Your task to perform on an android device: open chrome privacy settings Image 0: 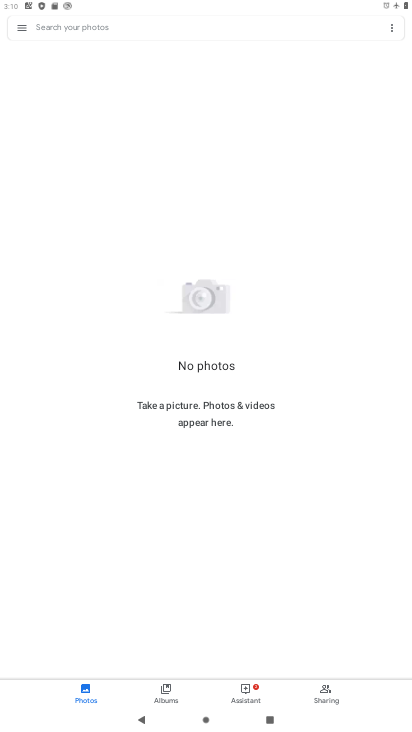
Step 0: press home button
Your task to perform on an android device: open chrome privacy settings Image 1: 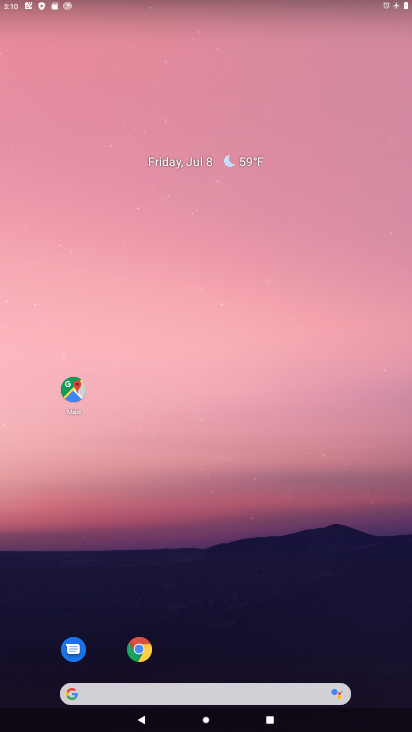
Step 1: drag from (262, 594) to (233, 176)
Your task to perform on an android device: open chrome privacy settings Image 2: 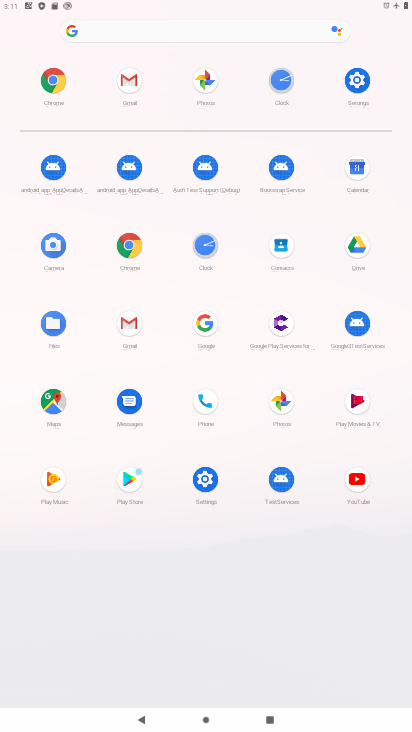
Step 2: click (356, 82)
Your task to perform on an android device: open chrome privacy settings Image 3: 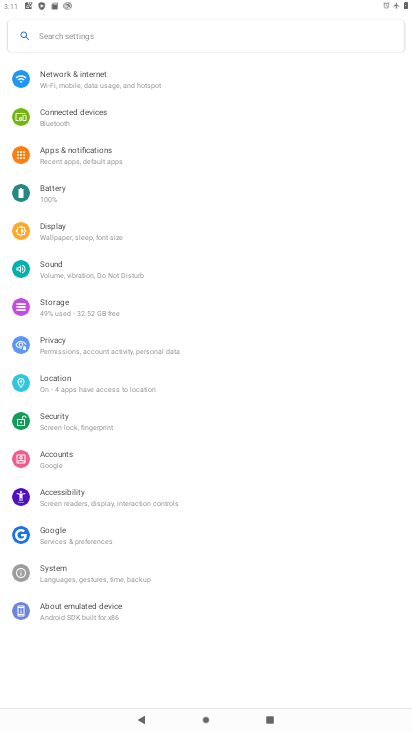
Step 3: click (105, 343)
Your task to perform on an android device: open chrome privacy settings Image 4: 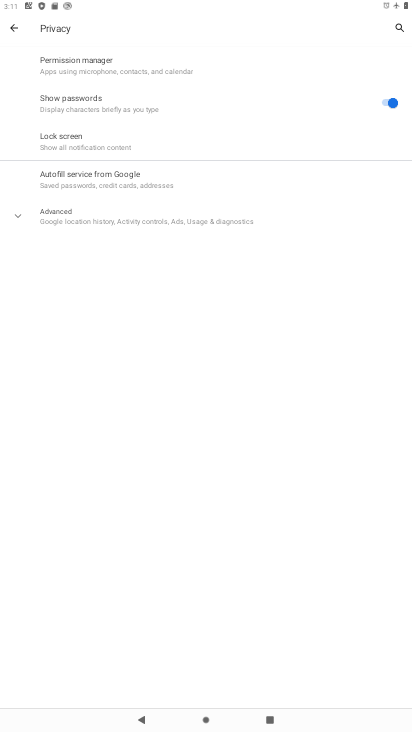
Step 4: task complete